Your task to perform on an android device: add a contact Image 0: 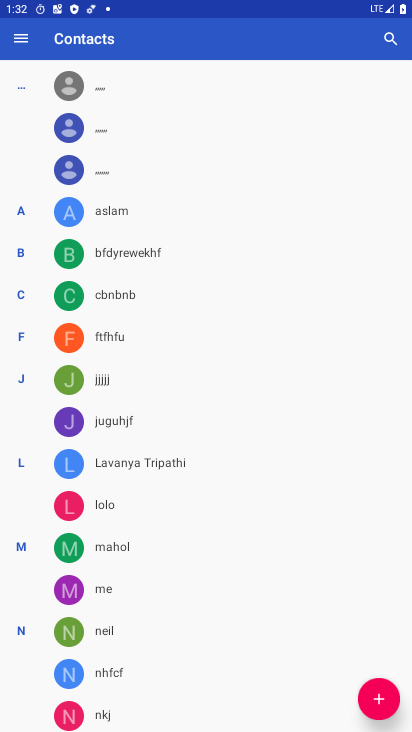
Step 0: drag from (205, 604) to (237, 348)
Your task to perform on an android device: add a contact Image 1: 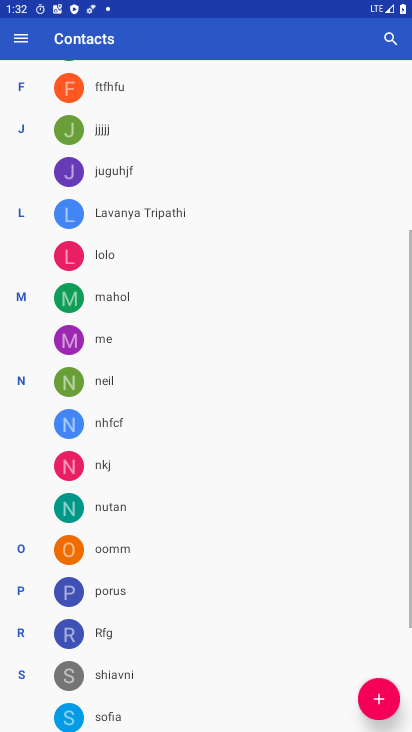
Step 1: click (381, 710)
Your task to perform on an android device: add a contact Image 2: 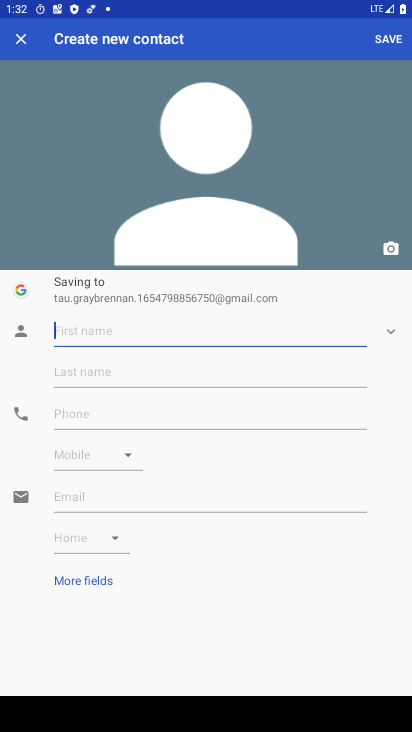
Step 2: click (120, 324)
Your task to perform on an android device: add a contact Image 3: 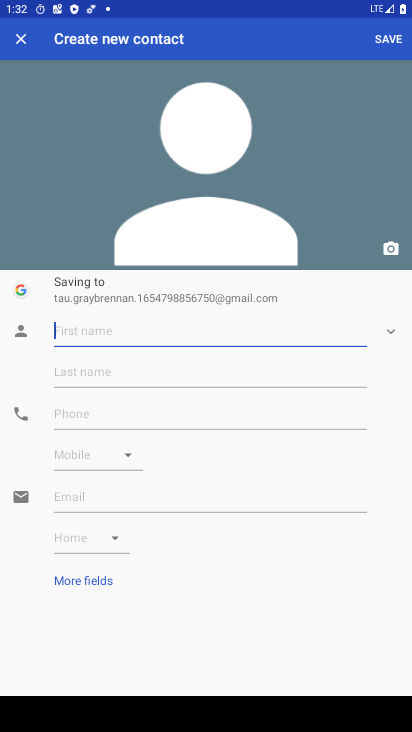
Step 3: type "makjsaks"
Your task to perform on an android device: add a contact Image 4: 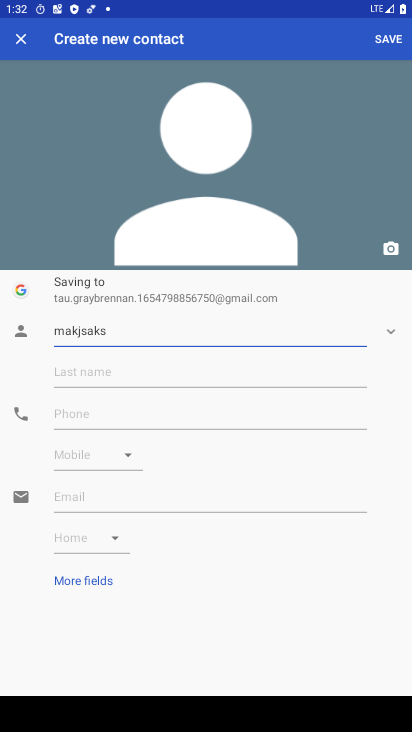
Step 4: click (105, 415)
Your task to perform on an android device: add a contact Image 5: 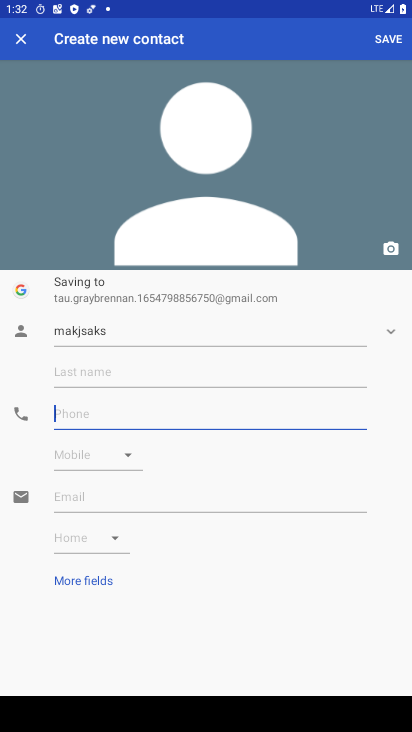
Step 5: type "983492832"
Your task to perform on an android device: add a contact Image 6: 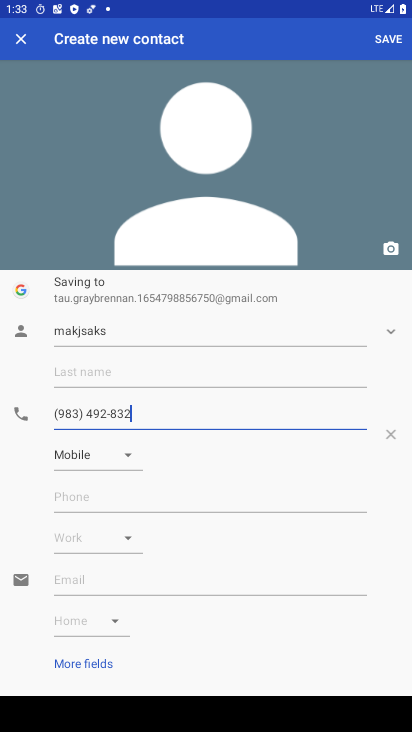
Step 6: click (385, 45)
Your task to perform on an android device: add a contact Image 7: 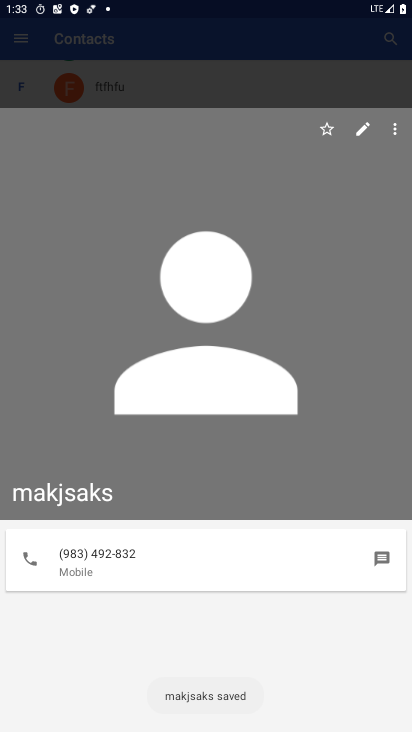
Step 7: task complete